Your task to perform on an android device: snooze an email in the gmail app Image 0: 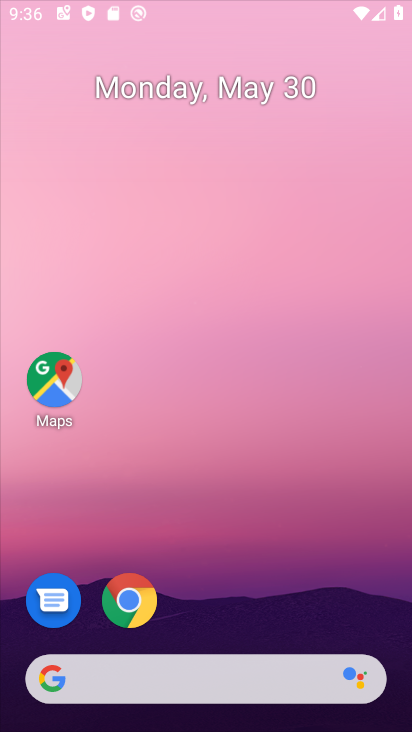
Step 0: press home button
Your task to perform on an android device: snooze an email in the gmail app Image 1: 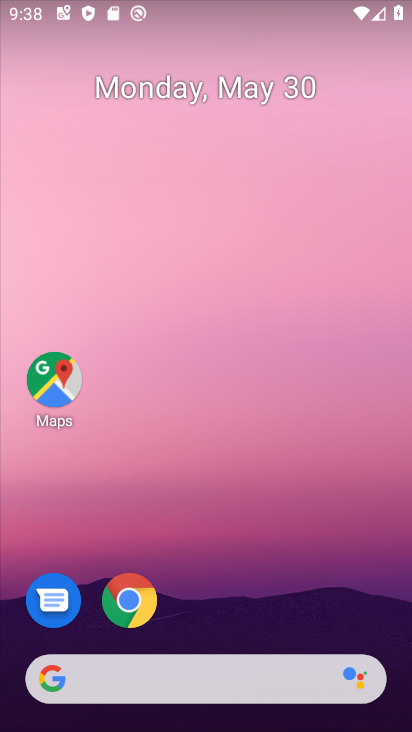
Step 1: drag from (243, 577) to (197, 3)
Your task to perform on an android device: snooze an email in the gmail app Image 2: 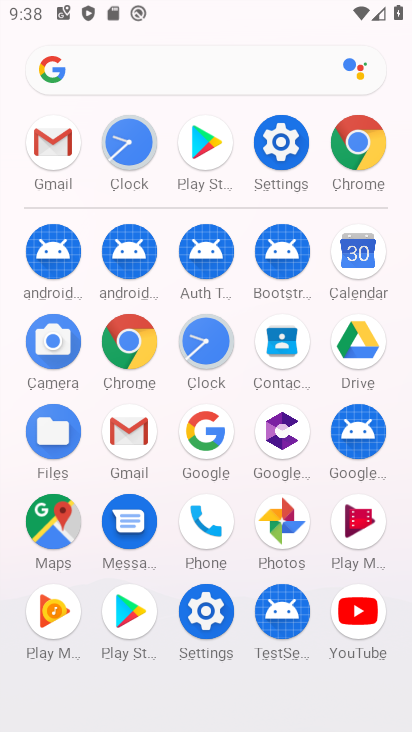
Step 2: click (59, 159)
Your task to perform on an android device: snooze an email in the gmail app Image 3: 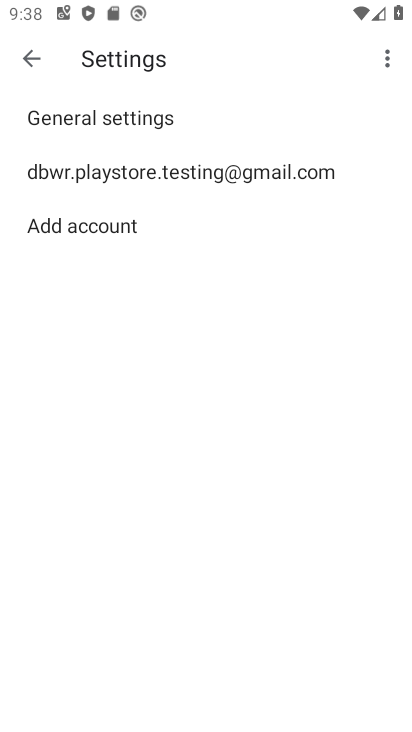
Step 3: click (28, 60)
Your task to perform on an android device: snooze an email in the gmail app Image 4: 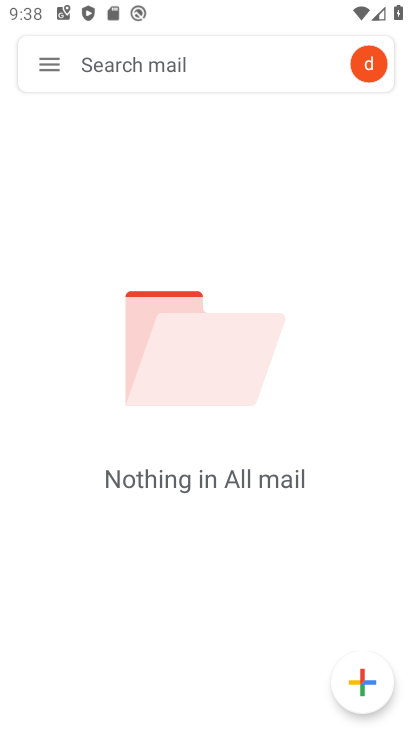
Step 4: click (49, 60)
Your task to perform on an android device: snooze an email in the gmail app Image 5: 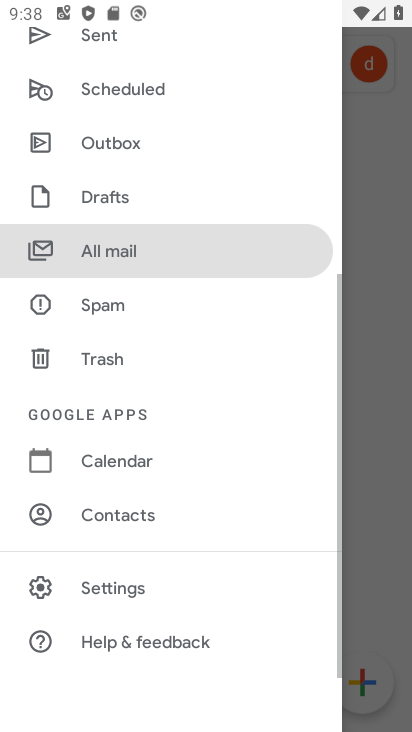
Step 5: click (74, 254)
Your task to perform on an android device: snooze an email in the gmail app Image 6: 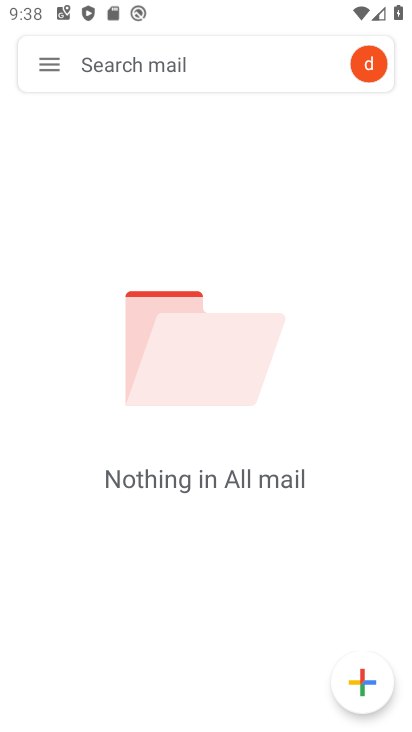
Step 6: task complete